Your task to perform on an android device: choose inbox layout in the gmail app Image 0: 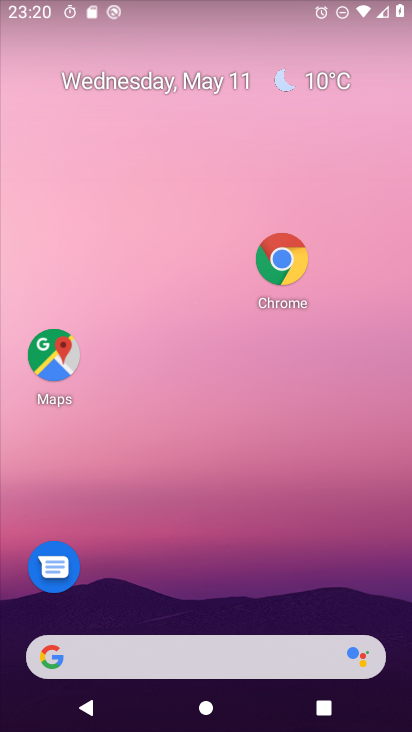
Step 0: drag from (161, 649) to (289, 209)
Your task to perform on an android device: choose inbox layout in the gmail app Image 1: 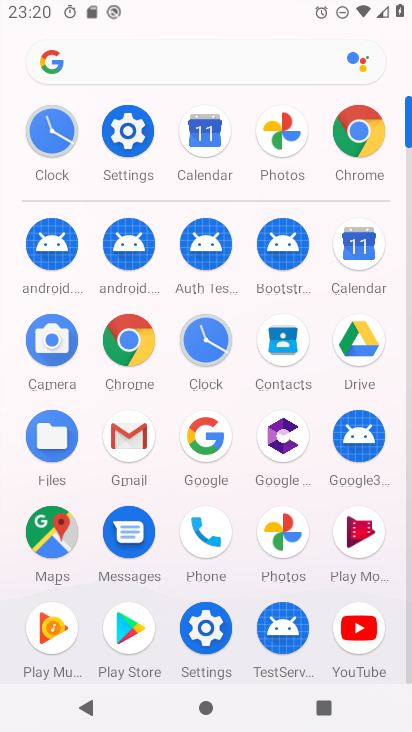
Step 1: click (136, 441)
Your task to perform on an android device: choose inbox layout in the gmail app Image 2: 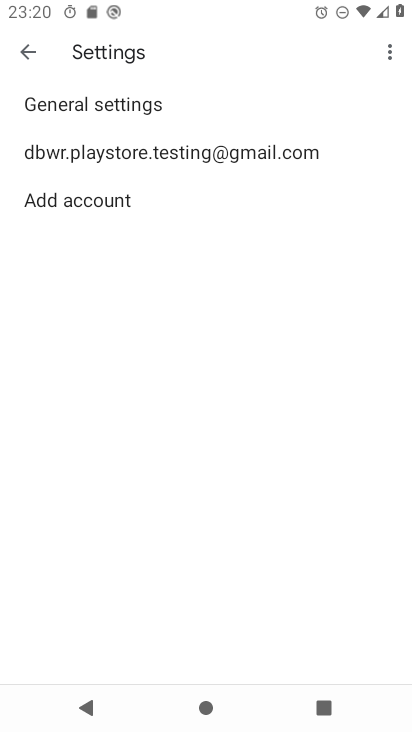
Step 2: click (198, 151)
Your task to perform on an android device: choose inbox layout in the gmail app Image 3: 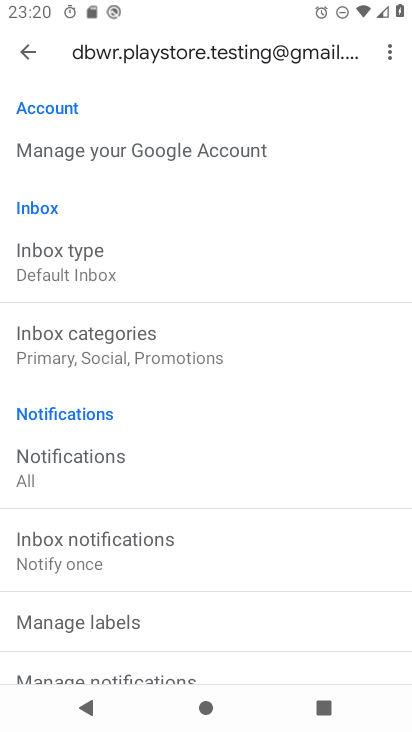
Step 3: click (75, 269)
Your task to perform on an android device: choose inbox layout in the gmail app Image 4: 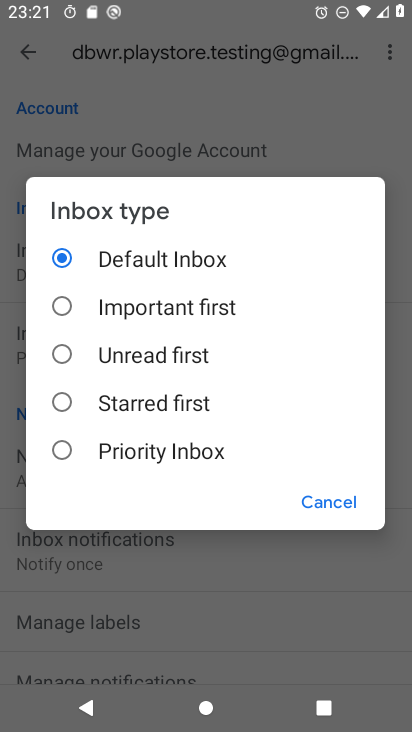
Step 4: click (58, 452)
Your task to perform on an android device: choose inbox layout in the gmail app Image 5: 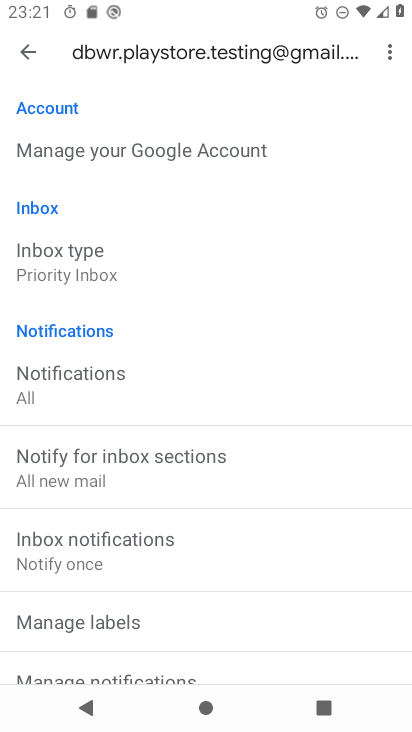
Step 5: task complete